Your task to perform on an android device: Is it going to rain tomorrow? Image 0: 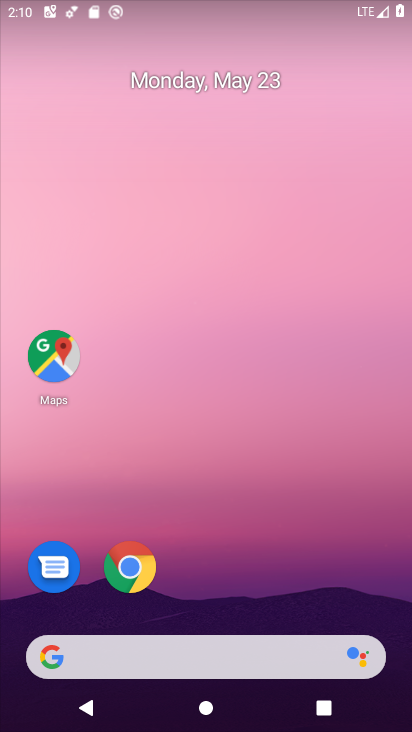
Step 0: drag from (230, 591) to (281, 306)
Your task to perform on an android device: Is it going to rain tomorrow? Image 1: 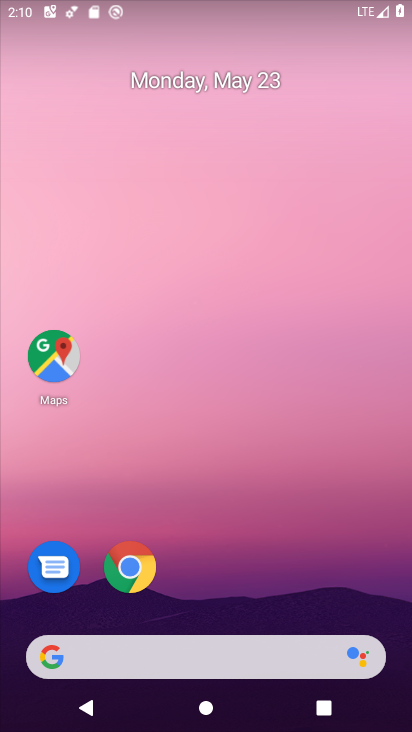
Step 1: drag from (261, 623) to (251, 255)
Your task to perform on an android device: Is it going to rain tomorrow? Image 2: 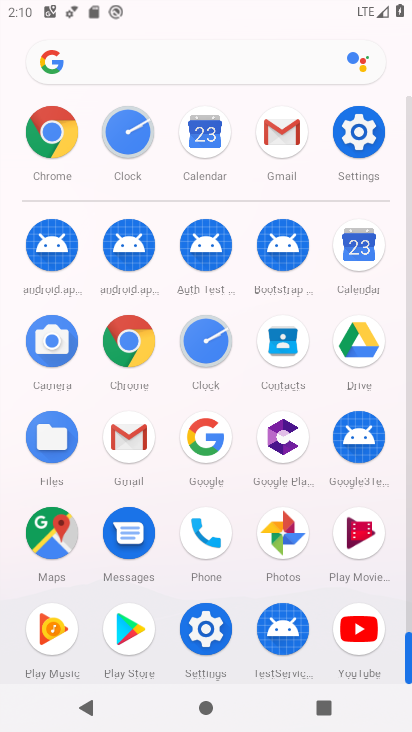
Step 2: click (218, 450)
Your task to perform on an android device: Is it going to rain tomorrow? Image 3: 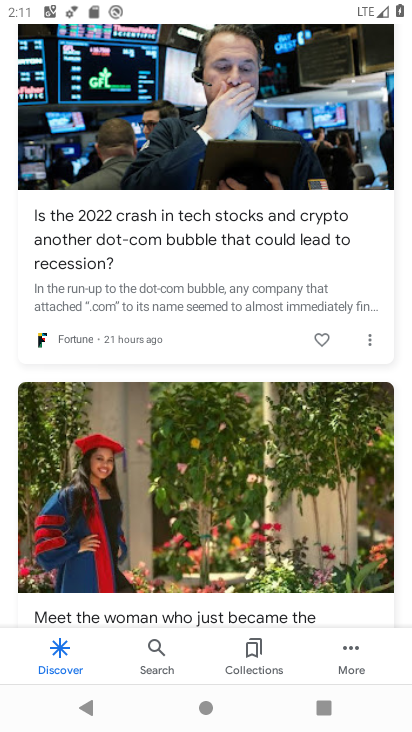
Step 3: drag from (161, 146) to (154, 514)
Your task to perform on an android device: Is it going to rain tomorrow? Image 4: 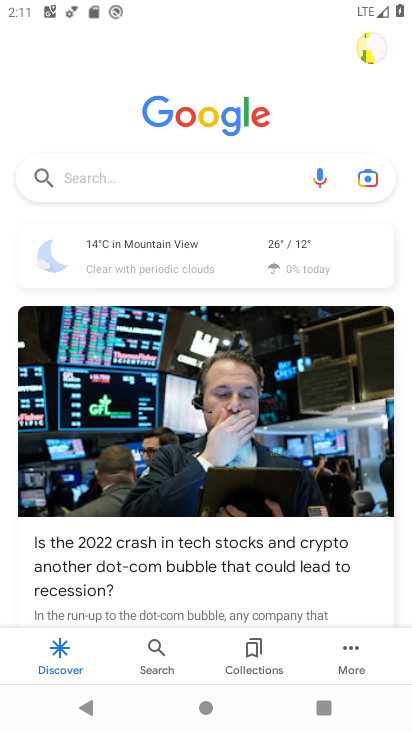
Step 4: click (120, 269)
Your task to perform on an android device: Is it going to rain tomorrow? Image 5: 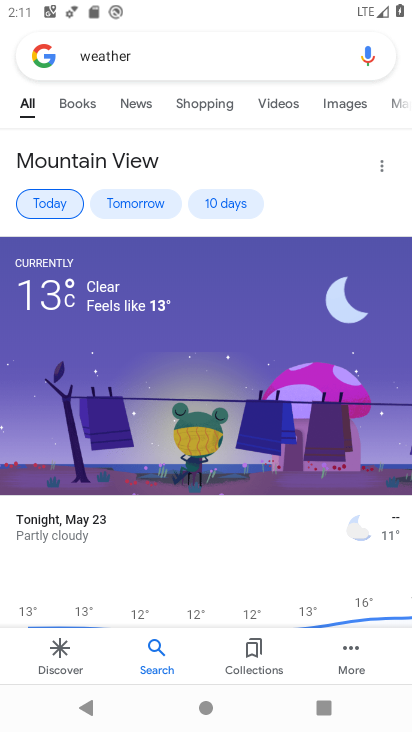
Step 5: click (121, 209)
Your task to perform on an android device: Is it going to rain tomorrow? Image 6: 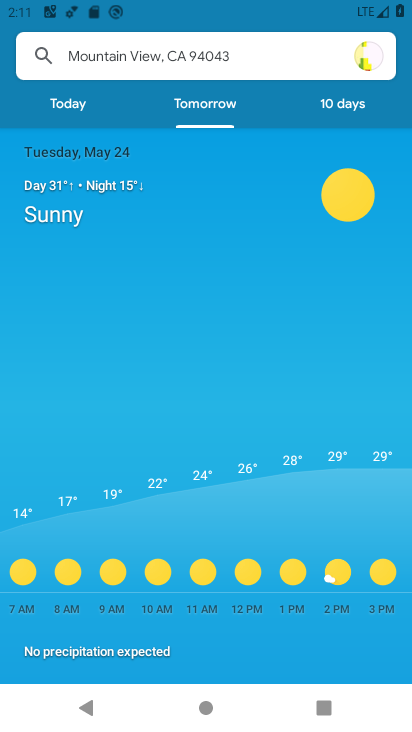
Step 6: task complete